Your task to perform on an android device: turn on translation in the chrome app Image 0: 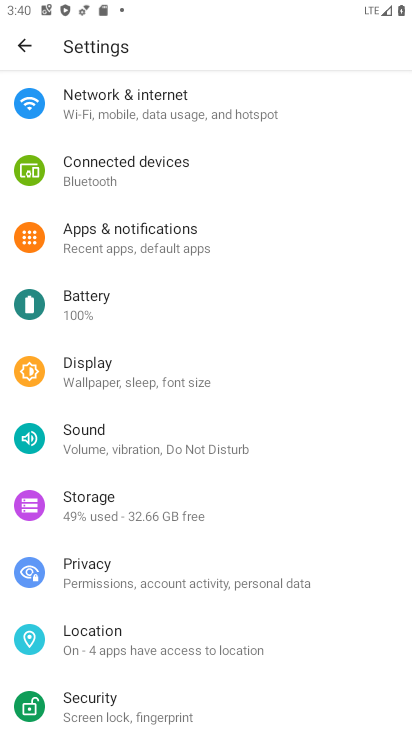
Step 0: press home button
Your task to perform on an android device: turn on translation in the chrome app Image 1: 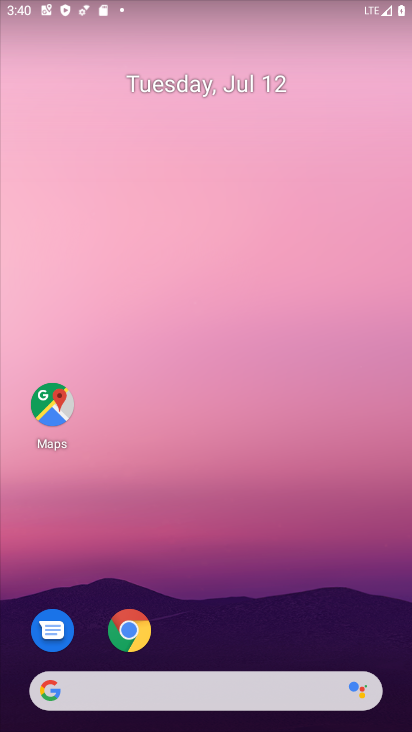
Step 1: drag from (220, 710) to (393, 3)
Your task to perform on an android device: turn on translation in the chrome app Image 2: 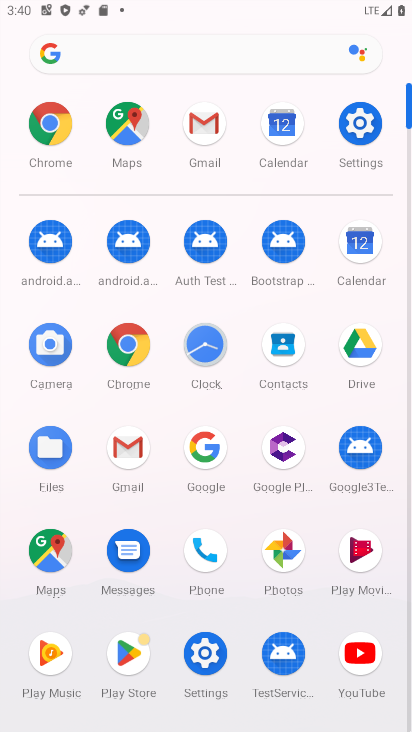
Step 2: click (119, 350)
Your task to perform on an android device: turn on translation in the chrome app Image 3: 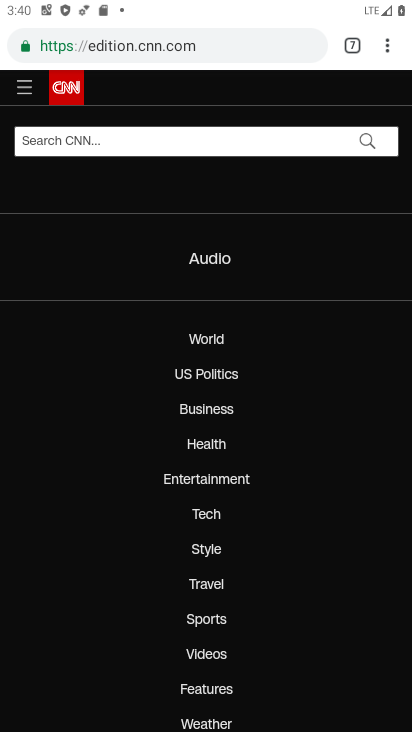
Step 3: drag from (382, 45) to (264, 543)
Your task to perform on an android device: turn on translation in the chrome app Image 4: 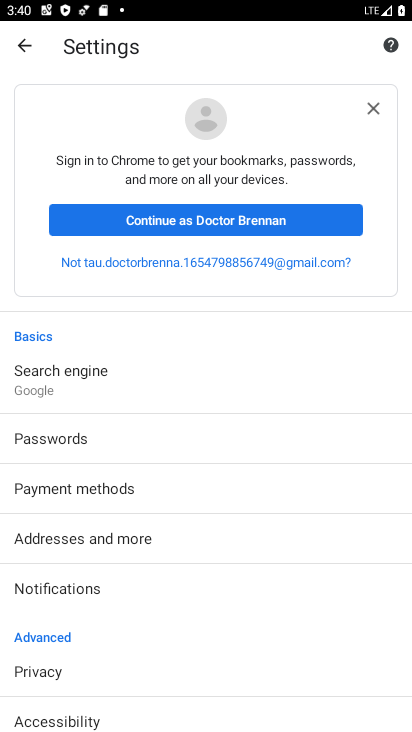
Step 4: drag from (134, 600) to (162, 145)
Your task to perform on an android device: turn on translation in the chrome app Image 5: 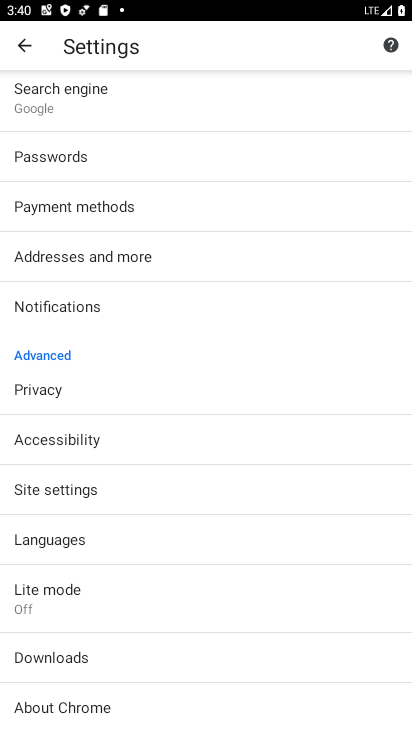
Step 5: click (61, 543)
Your task to perform on an android device: turn on translation in the chrome app Image 6: 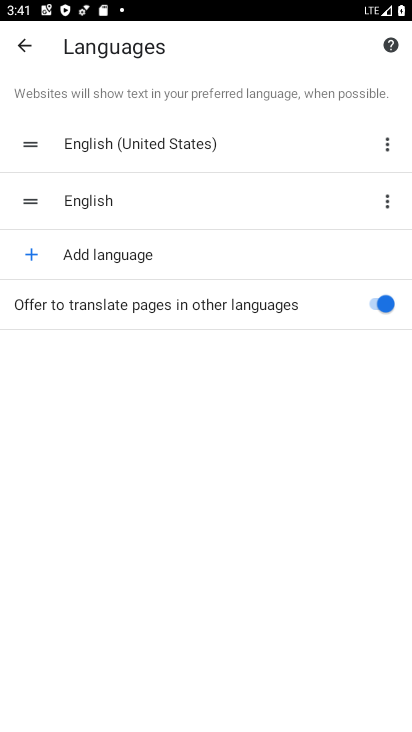
Step 6: task complete